Your task to perform on an android device: turn off notifications in google photos Image 0: 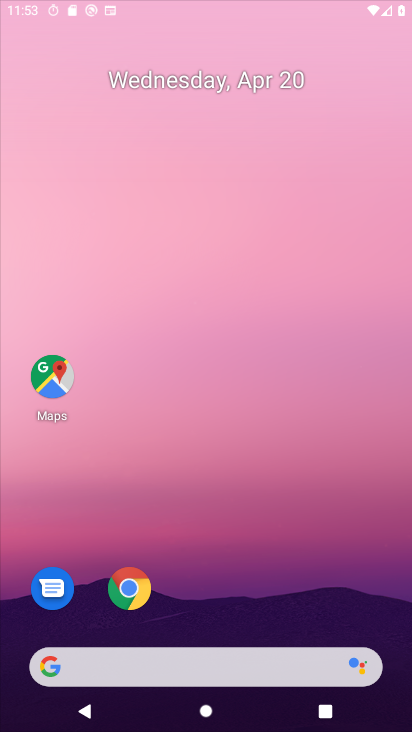
Step 0: click (247, 117)
Your task to perform on an android device: turn off notifications in google photos Image 1: 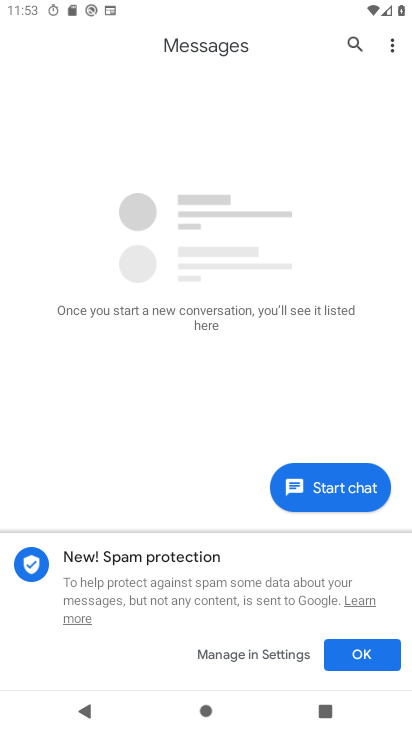
Step 1: click (361, 655)
Your task to perform on an android device: turn off notifications in google photos Image 2: 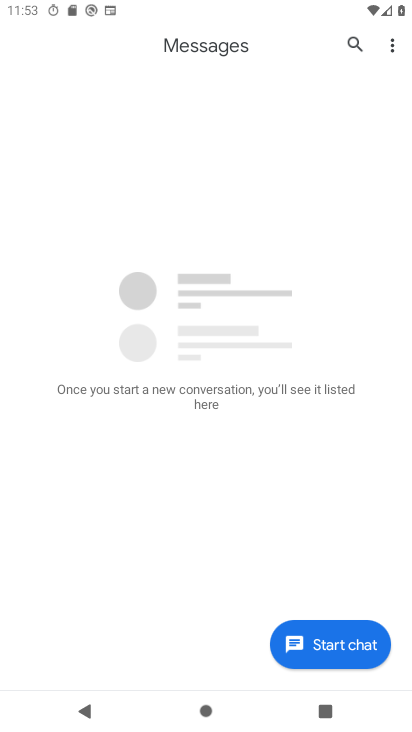
Step 2: press home button
Your task to perform on an android device: turn off notifications in google photos Image 3: 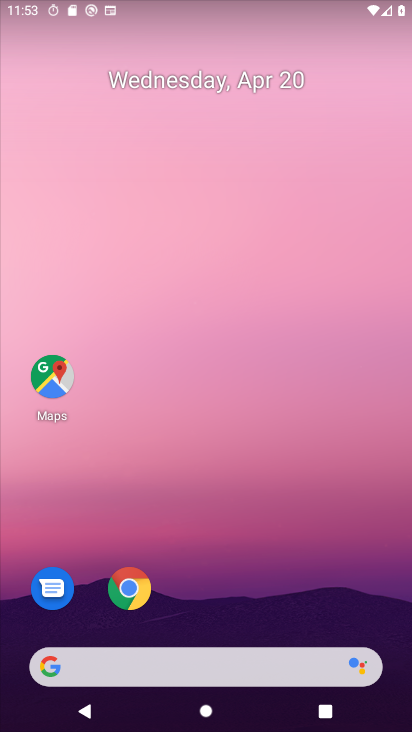
Step 3: drag from (212, 624) to (255, 44)
Your task to perform on an android device: turn off notifications in google photos Image 4: 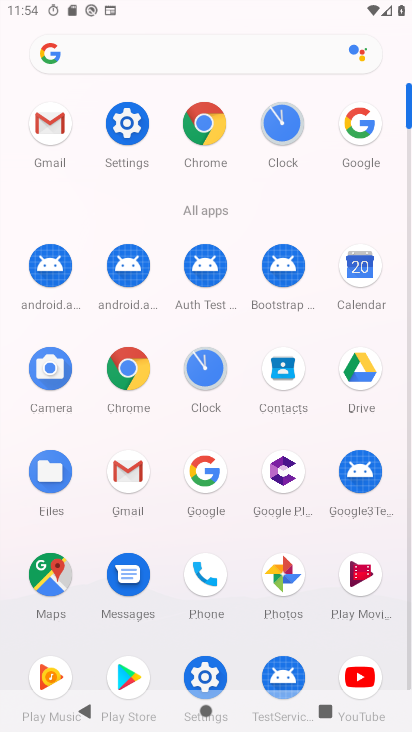
Step 4: click (282, 568)
Your task to perform on an android device: turn off notifications in google photos Image 5: 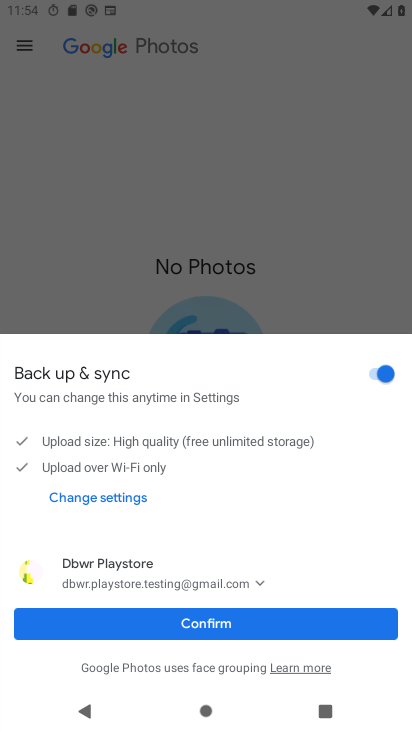
Step 5: click (209, 622)
Your task to perform on an android device: turn off notifications in google photos Image 6: 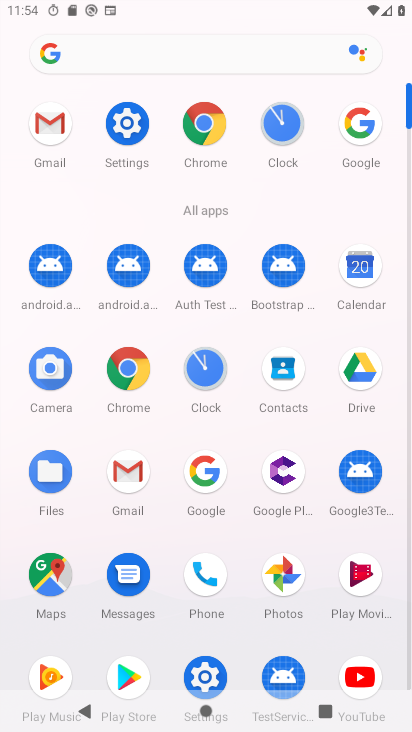
Step 6: click (284, 569)
Your task to perform on an android device: turn off notifications in google photos Image 7: 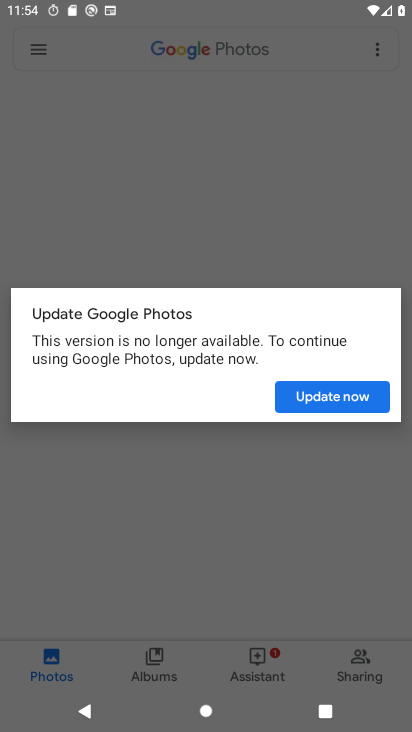
Step 7: click (337, 395)
Your task to perform on an android device: turn off notifications in google photos Image 8: 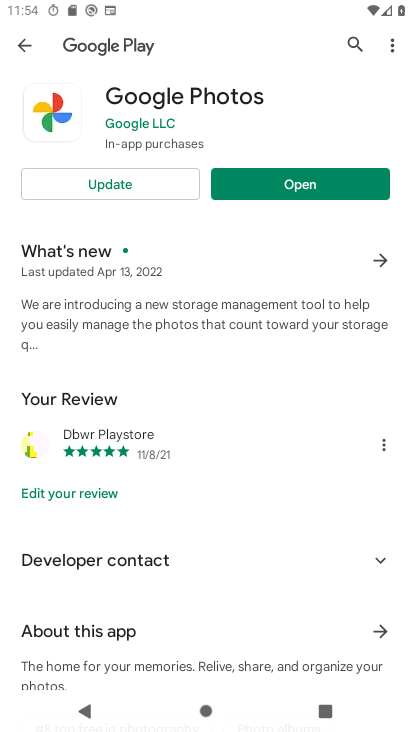
Step 8: click (137, 187)
Your task to perform on an android device: turn off notifications in google photos Image 9: 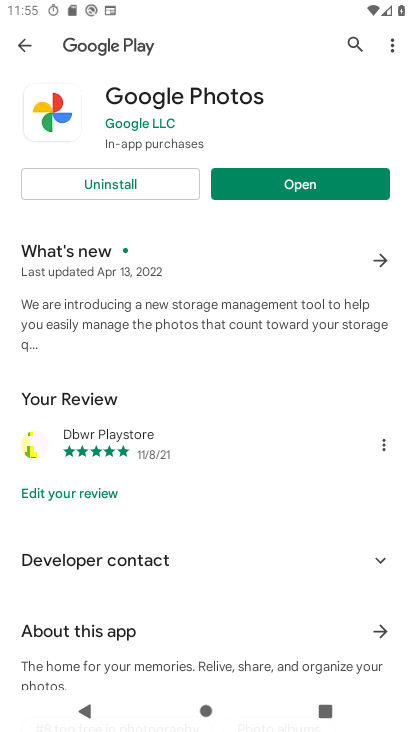
Step 9: click (293, 176)
Your task to perform on an android device: turn off notifications in google photos Image 10: 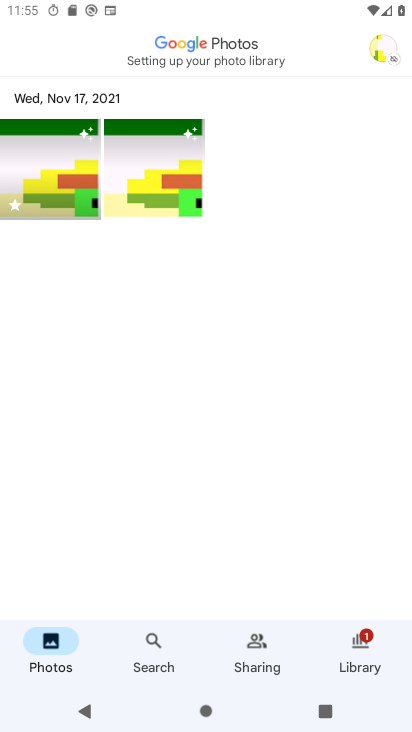
Step 10: click (381, 46)
Your task to perform on an android device: turn off notifications in google photos Image 11: 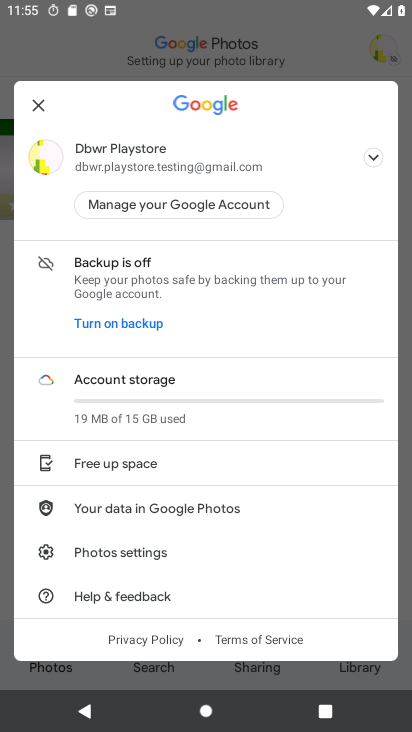
Step 11: click (137, 550)
Your task to perform on an android device: turn off notifications in google photos Image 12: 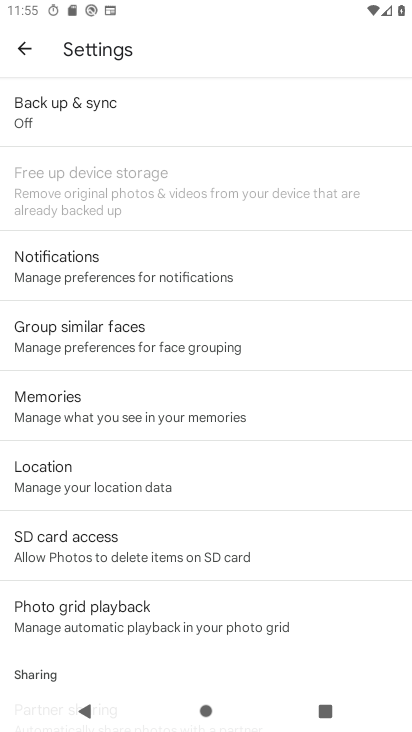
Step 12: click (106, 265)
Your task to perform on an android device: turn off notifications in google photos Image 13: 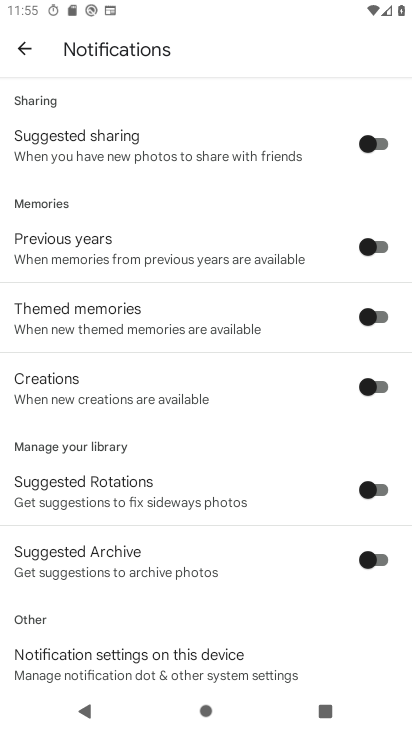
Step 13: click (181, 666)
Your task to perform on an android device: turn off notifications in google photos Image 14: 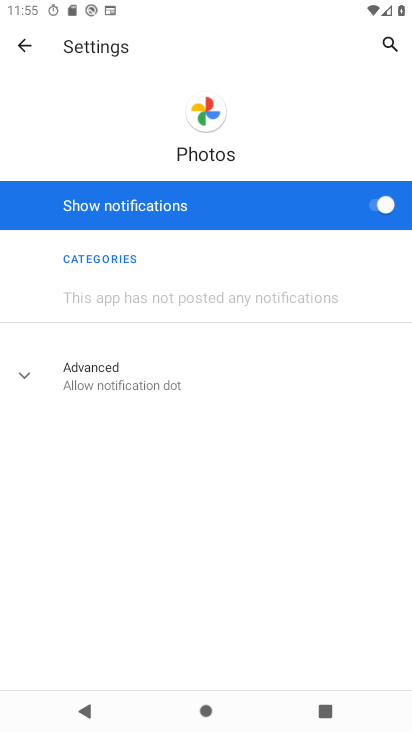
Step 14: click (377, 203)
Your task to perform on an android device: turn off notifications in google photos Image 15: 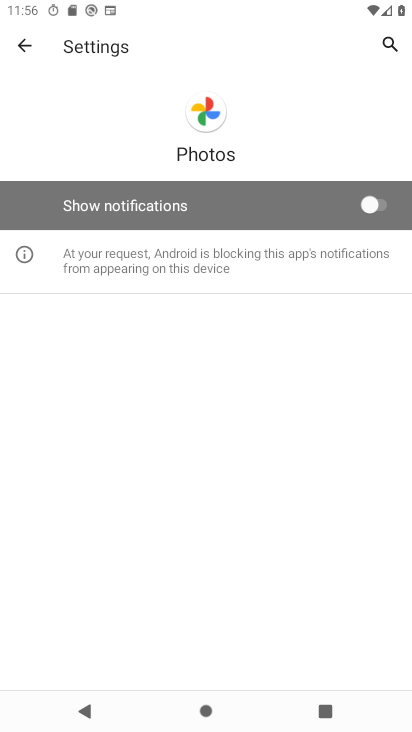
Step 15: task complete